Your task to perform on an android device: Open calendar and show me the third week of next month Image 0: 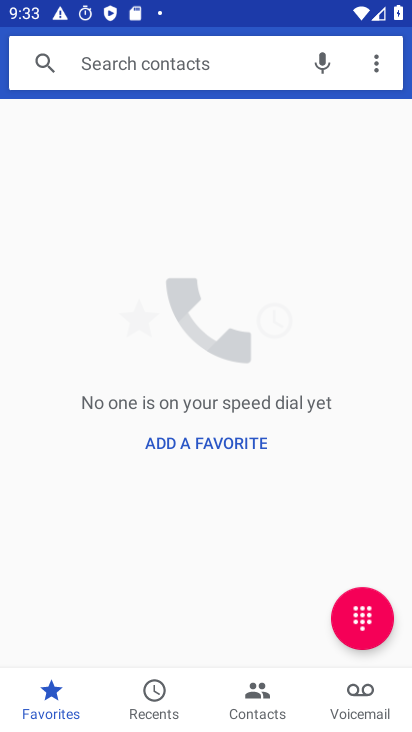
Step 0: press home button
Your task to perform on an android device: Open calendar and show me the third week of next month Image 1: 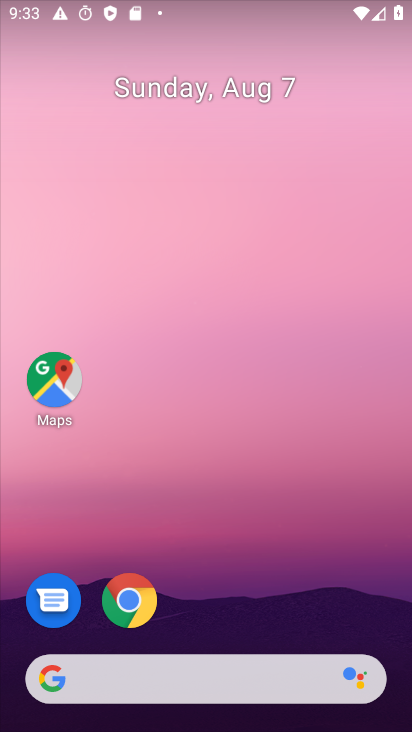
Step 1: drag from (188, 639) to (282, 204)
Your task to perform on an android device: Open calendar and show me the third week of next month Image 2: 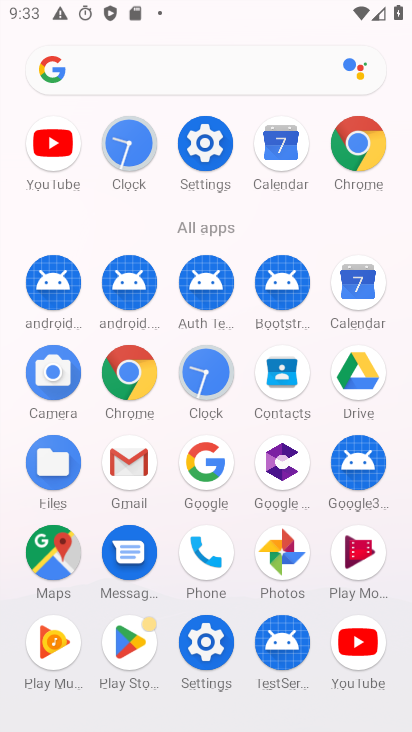
Step 2: click (281, 161)
Your task to perform on an android device: Open calendar and show me the third week of next month Image 3: 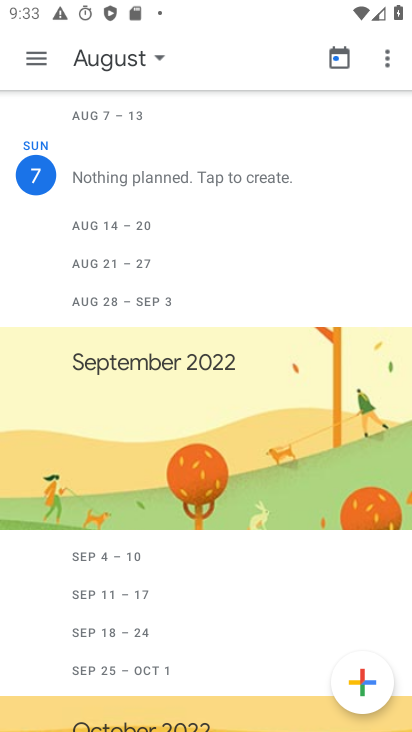
Step 3: click (139, 56)
Your task to perform on an android device: Open calendar and show me the third week of next month Image 4: 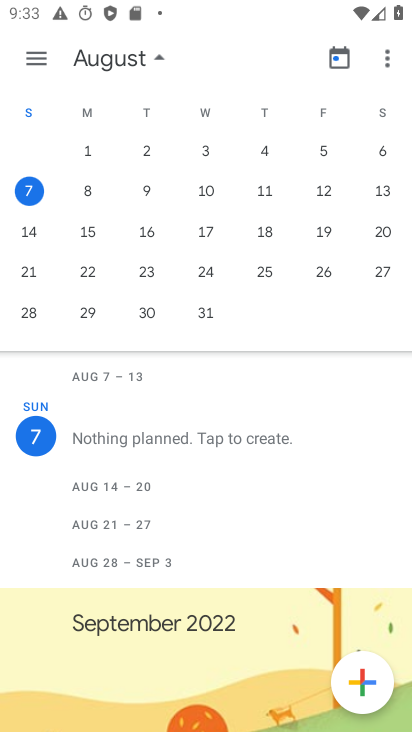
Step 4: drag from (342, 238) to (33, 203)
Your task to perform on an android device: Open calendar and show me the third week of next month Image 5: 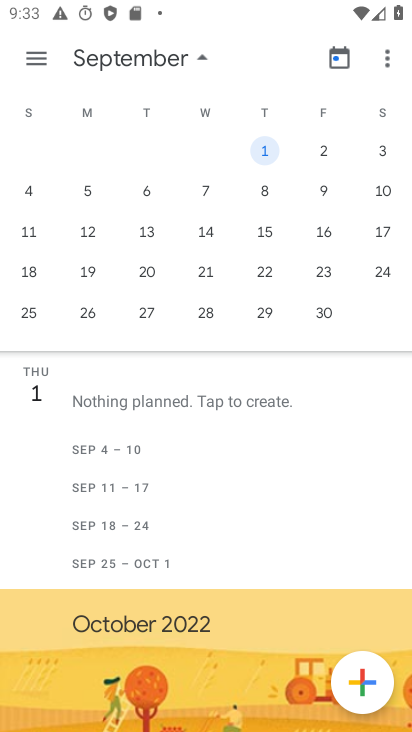
Step 5: click (31, 273)
Your task to perform on an android device: Open calendar and show me the third week of next month Image 6: 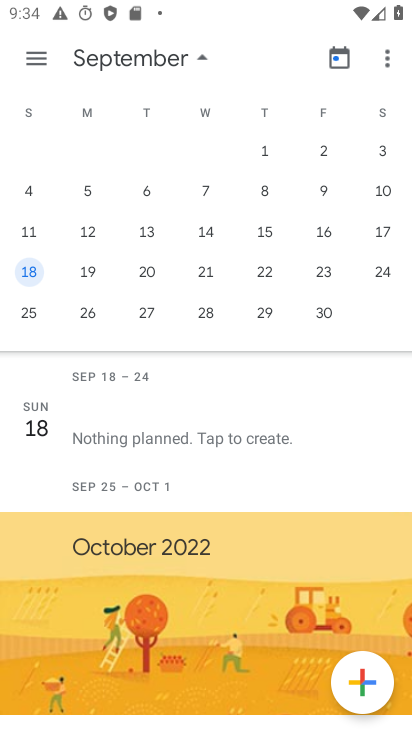
Step 6: task complete